Your task to perform on an android device: turn notification dots on Image 0: 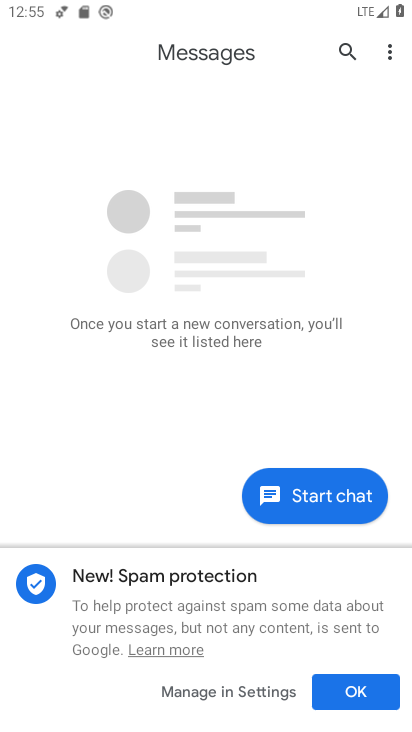
Step 0: press home button
Your task to perform on an android device: turn notification dots on Image 1: 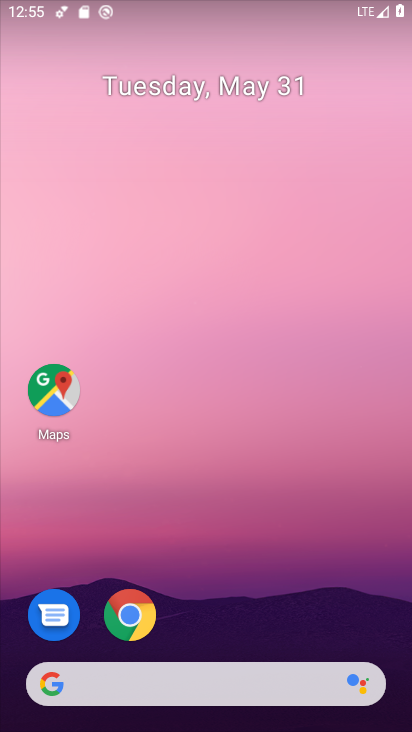
Step 1: drag from (224, 628) to (191, 8)
Your task to perform on an android device: turn notification dots on Image 2: 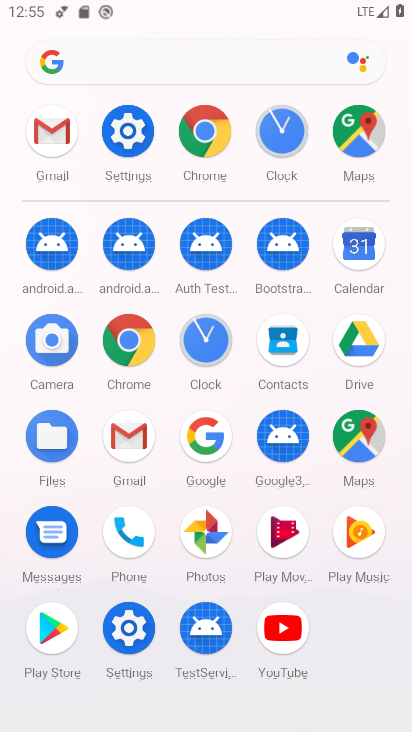
Step 2: click (127, 176)
Your task to perform on an android device: turn notification dots on Image 3: 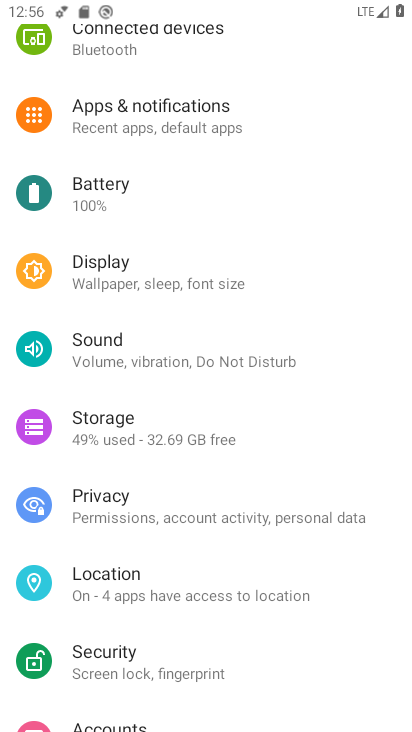
Step 3: click (181, 130)
Your task to perform on an android device: turn notification dots on Image 4: 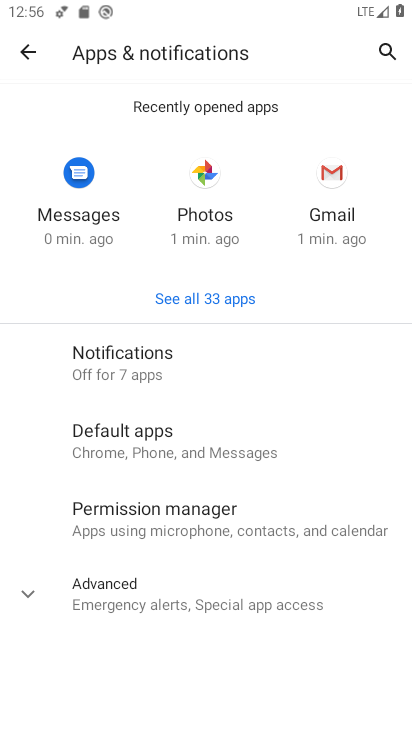
Step 4: click (150, 377)
Your task to perform on an android device: turn notification dots on Image 5: 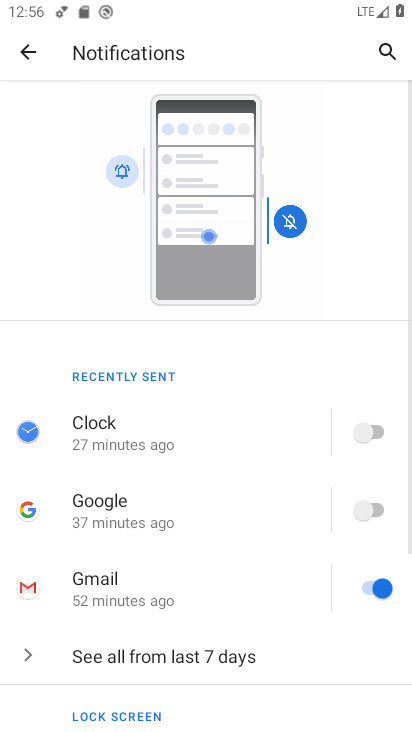
Step 5: drag from (184, 594) to (261, 87)
Your task to perform on an android device: turn notification dots on Image 6: 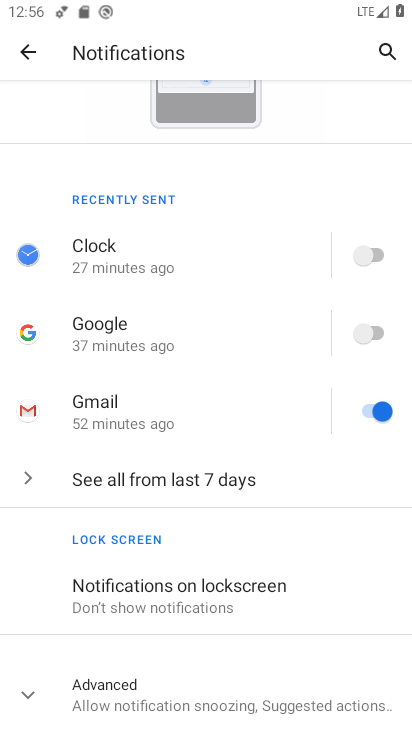
Step 6: click (140, 705)
Your task to perform on an android device: turn notification dots on Image 7: 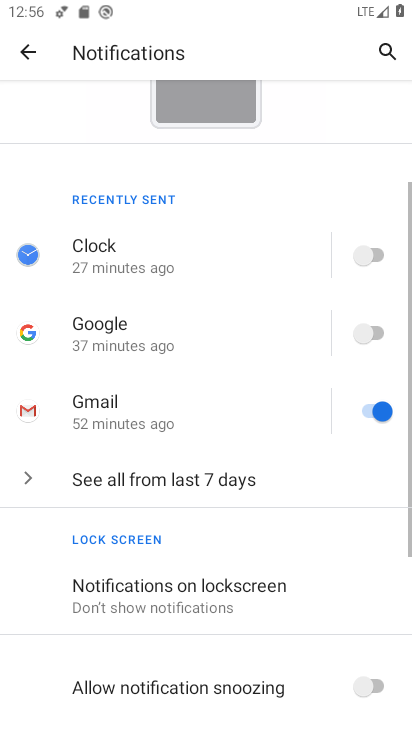
Step 7: drag from (140, 692) to (269, 82)
Your task to perform on an android device: turn notification dots on Image 8: 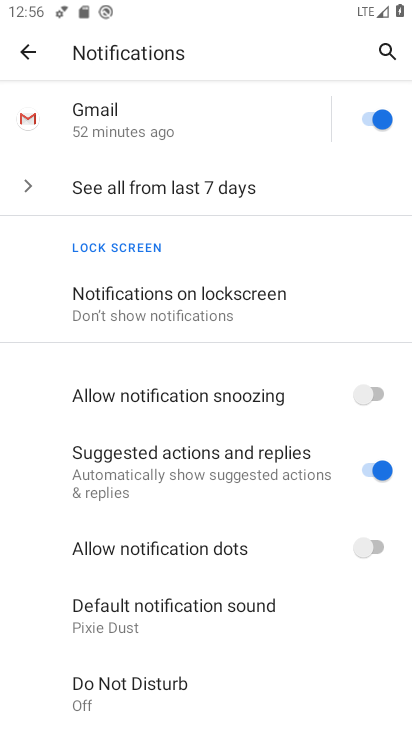
Step 8: click (393, 550)
Your task to perform on an android device: turn notification dots on Image 9: 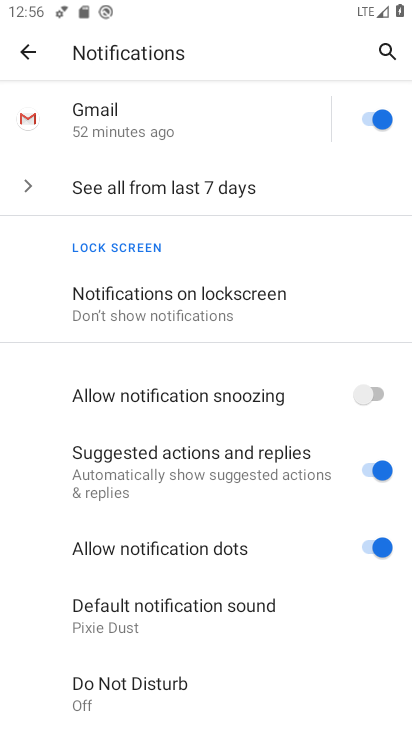
Step 9: task complete